Your task to perform on an android device: Go to wifi settings Image 0: 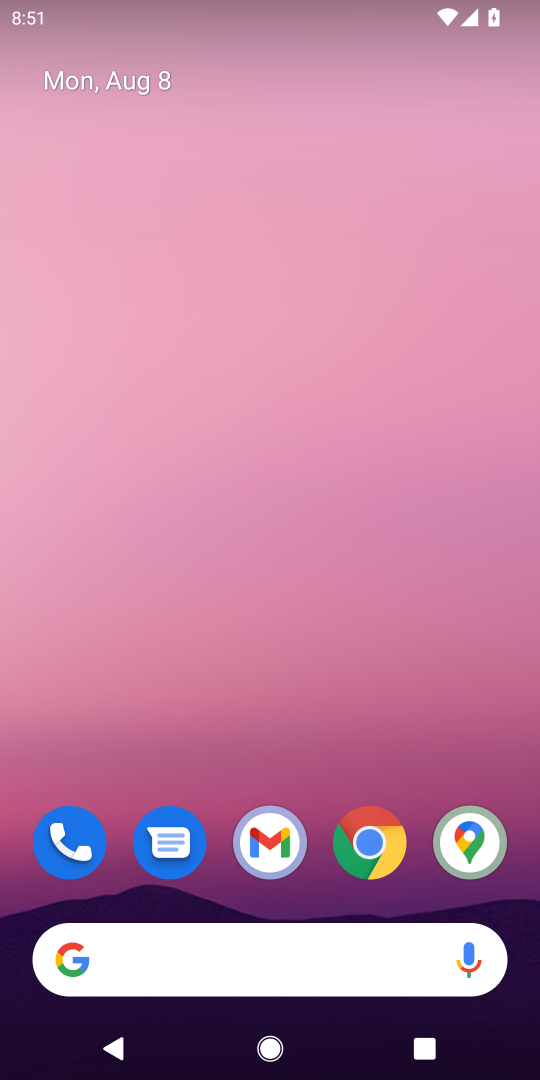
Step 0: click (151, 4)
Your task to perform on an android device: Go to wifi settings Image 1: 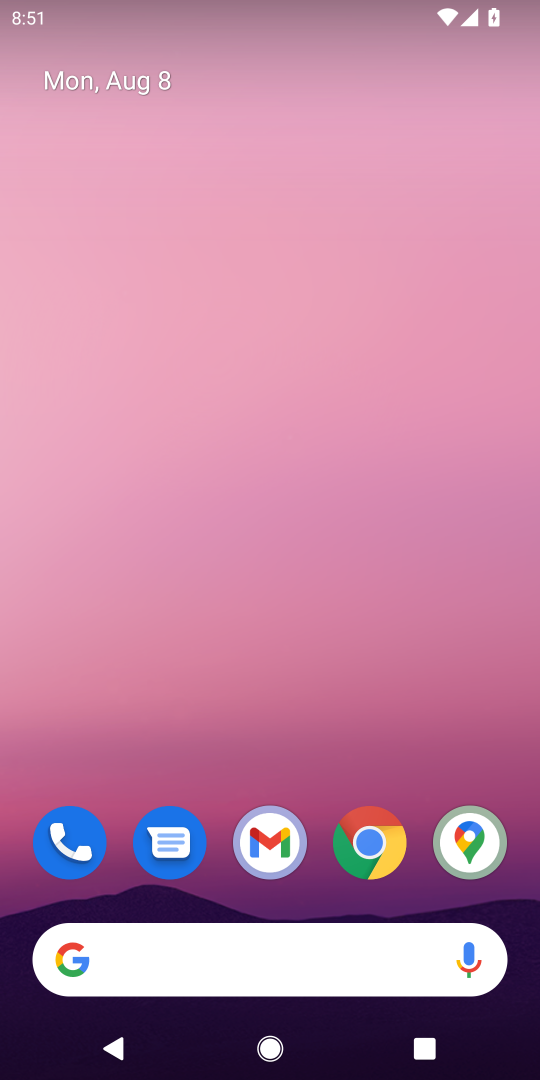
Step 1: drag from (221, 196) to (221, 0)
Your task to perform on an android device: Go to wifi settings Image 2: 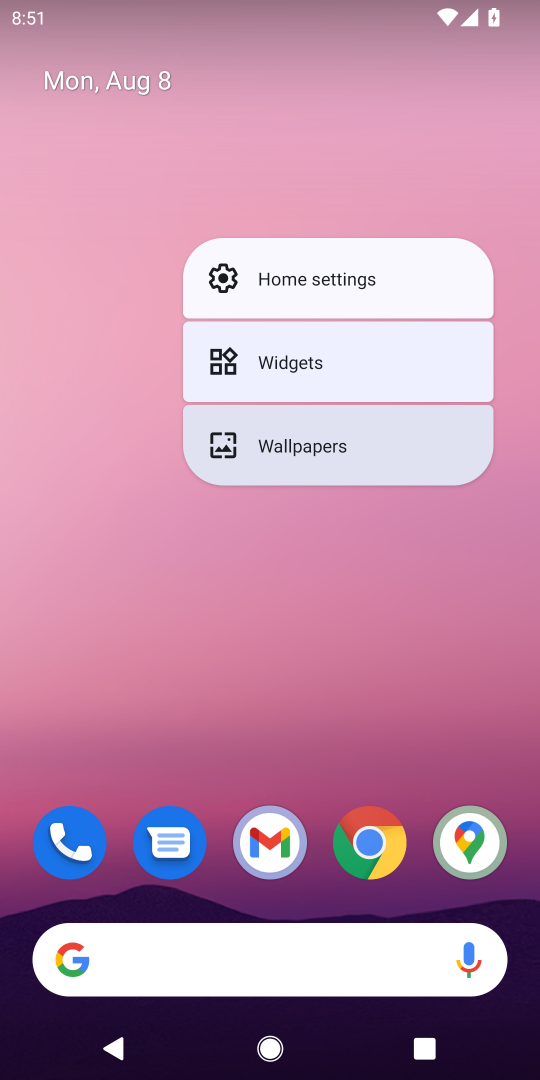
Step 2: click (115, 729)
Your task to perform on an android device: Go to wifi settings Image 3: 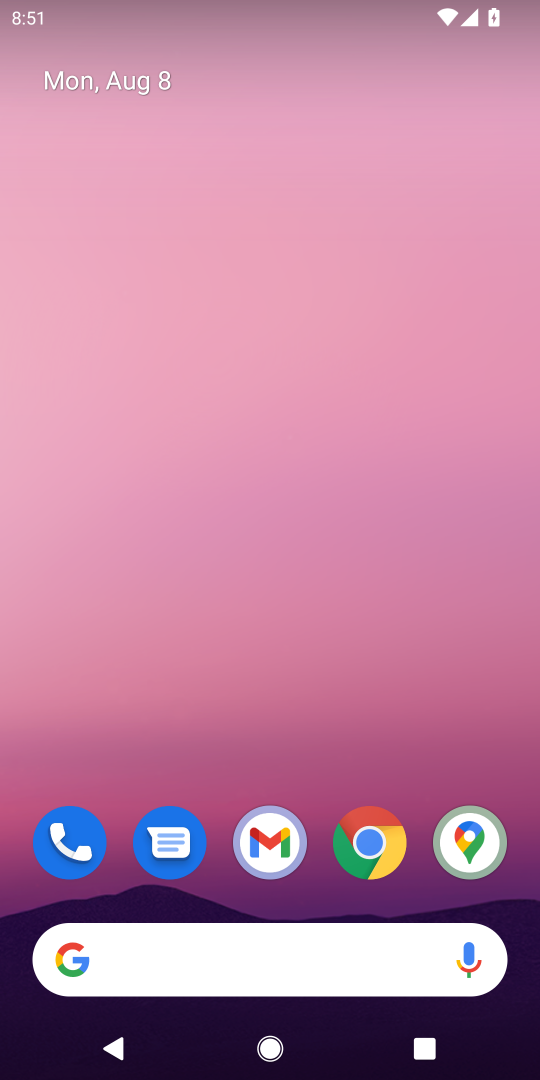
Step 3: drag from (232, 220) to (224, 59)
Your task to perform on an android device: Go to wifi settings Image 4: 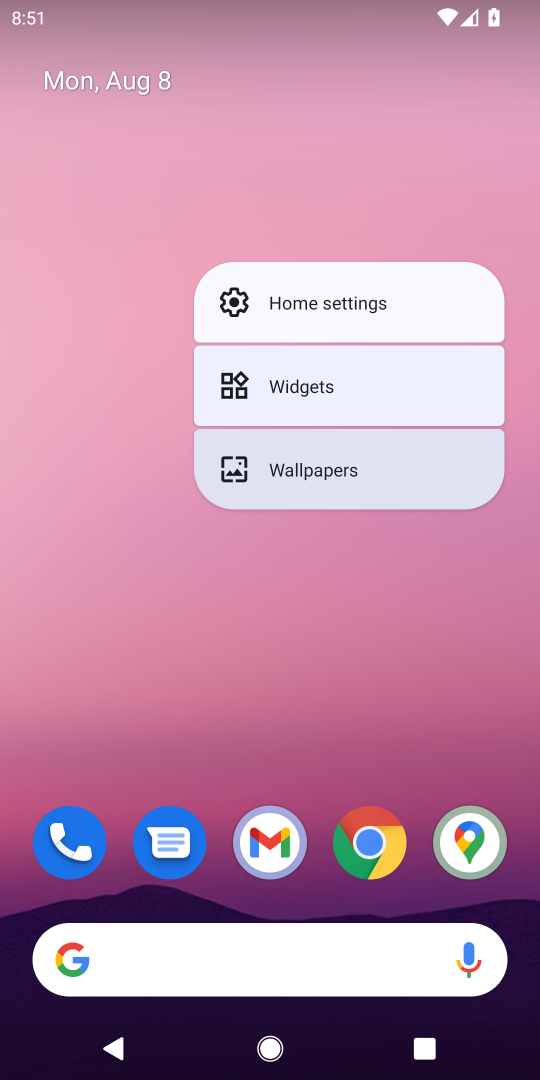
Step 4: click (224, 59)
Your task to perform on an android device: Go to wifi settings Image 5: 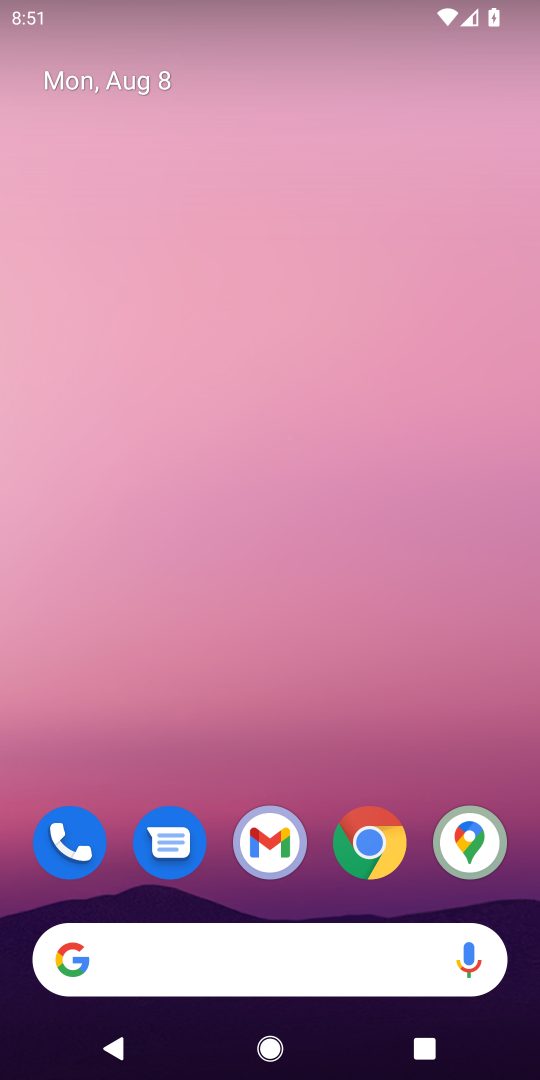
Step 5: drag from (237, 672) to (237, 143)
Your task to perform on an android device: Go to wifi settings Image 6: 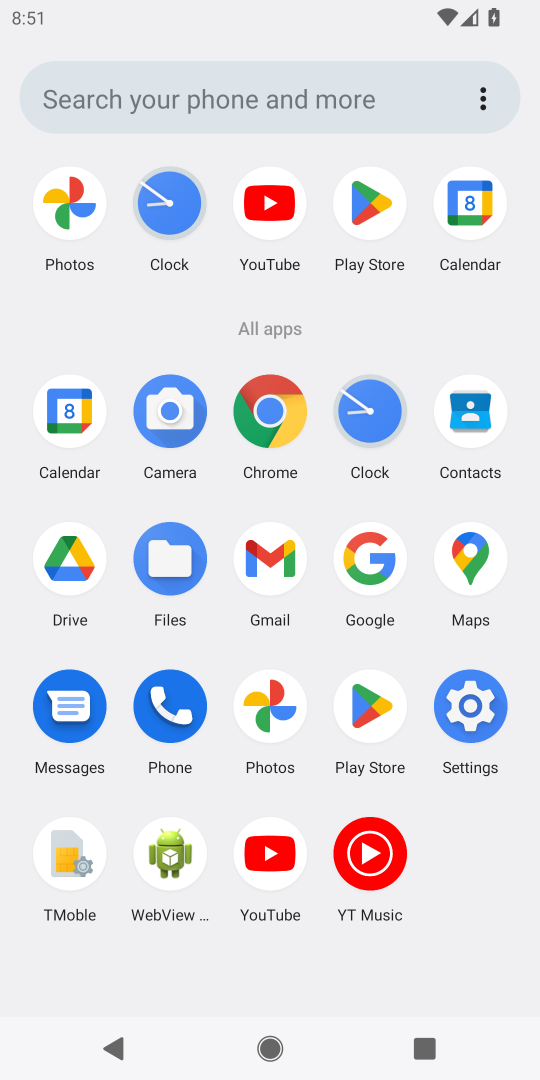
Step 6: click (470, 717)
Your task to perform on an android device: Go to wifi settings Image 7: 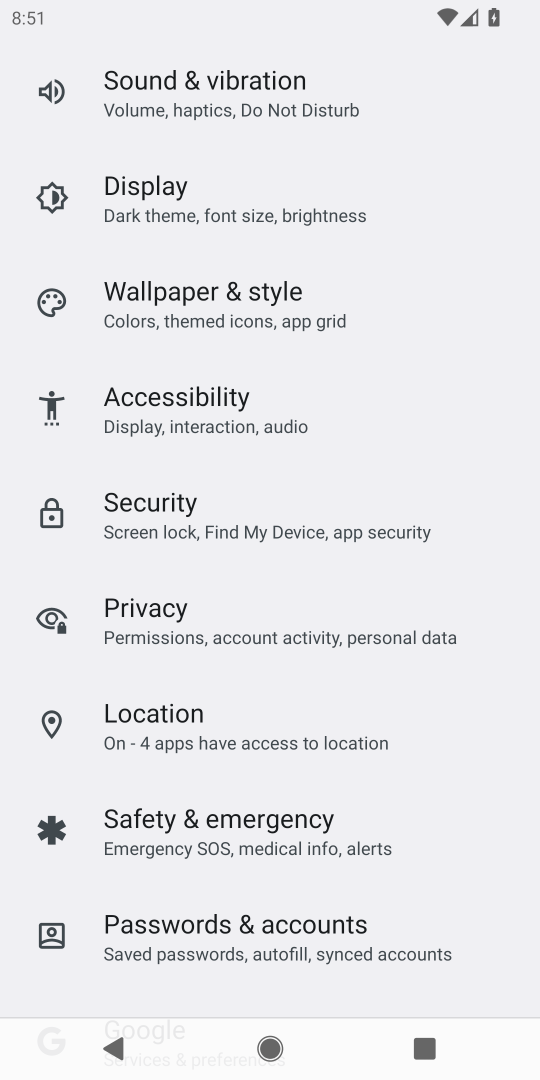
Step 7: drag from (193, 243) to (231, 1048)
Your task to perform on an android device: Go to wifi settings Image 8: 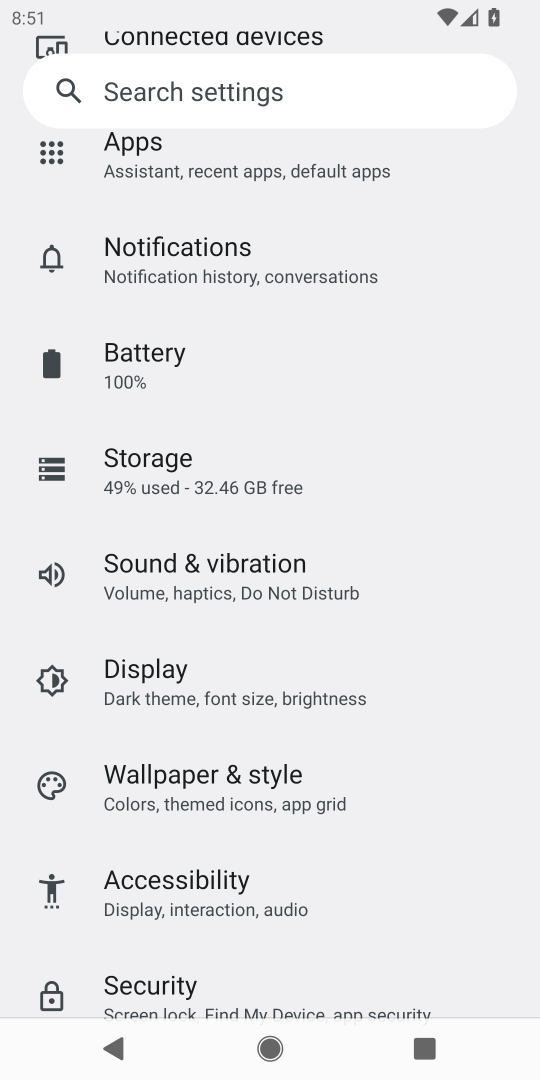
Step 8: drag from (262, 317) to (315, 798)
Your task to perform on an android device: Go to wifi settings Image 9: 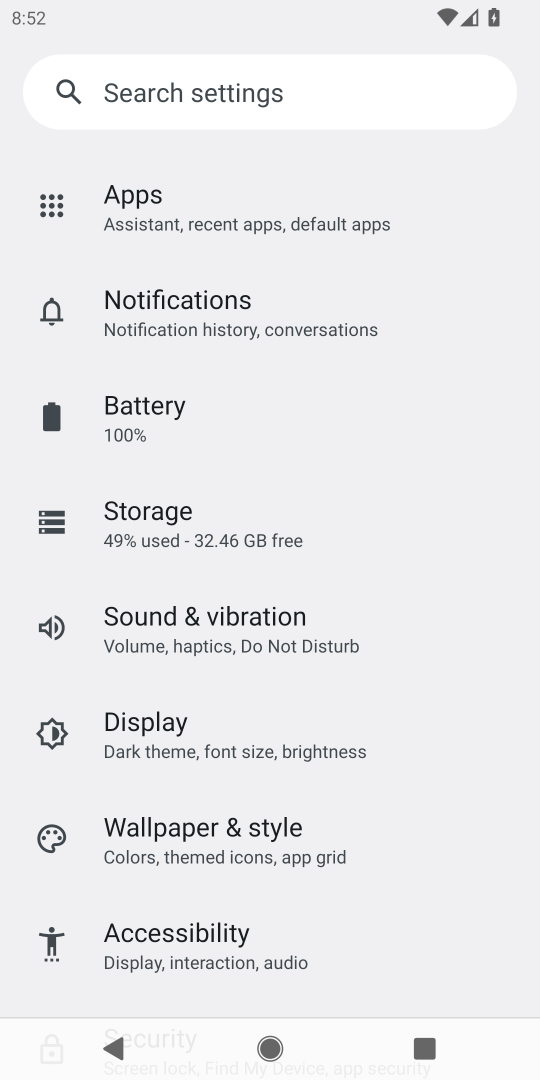
Step 9: drag from (291, 196) to (320, 647)
Your task to perform on an android device: Go to wifi settings Image 10: 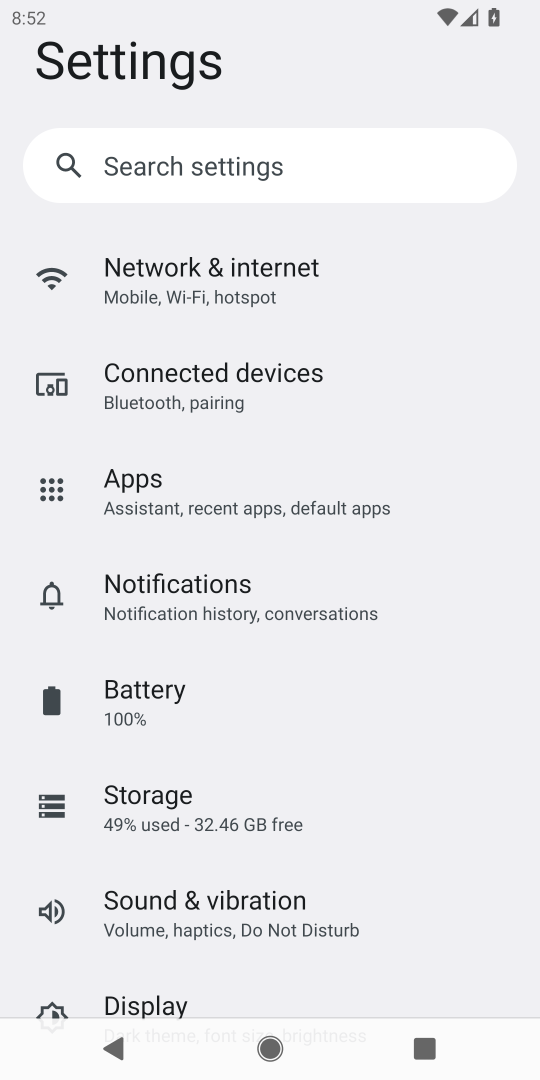
Step 10: click (243, 269)
Your task to perform on an android device: Go to wifi settings Image 11: 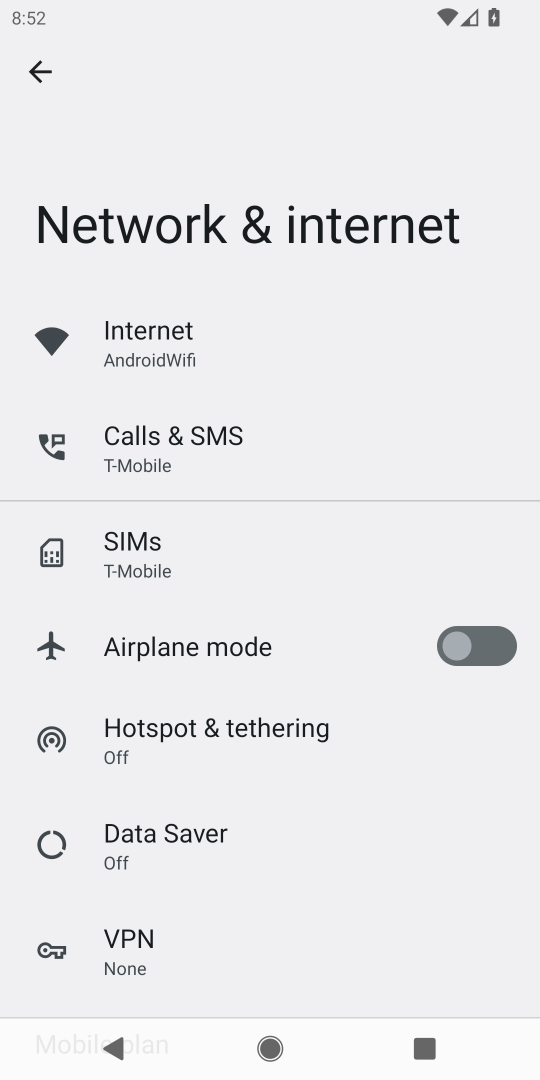
Step 11: click (166, 346)
Your task to perform on an android device: Go to wifi settings Image 12: 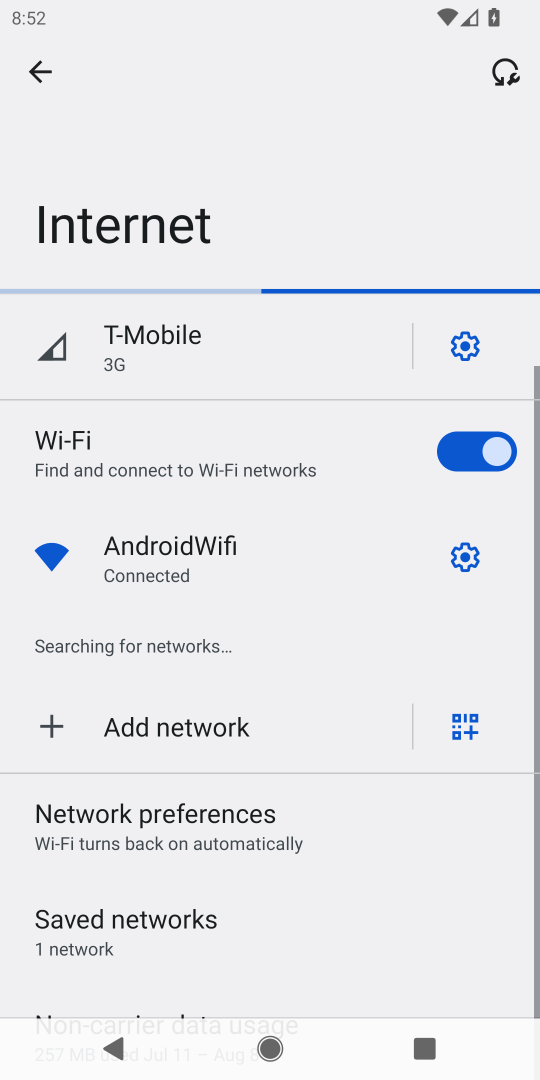
Step 12: click (452, 564)
Your task to perform on an android device: Go to wifi settings Image 13: 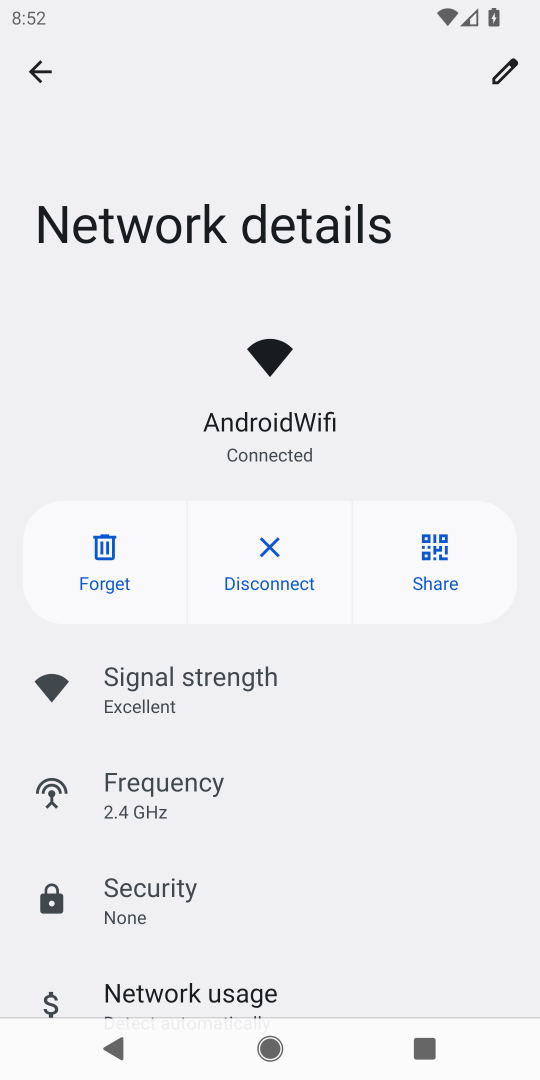
Step 13: task complete